Your task to perform on an android device: add a contact in the contacts app Image 0: 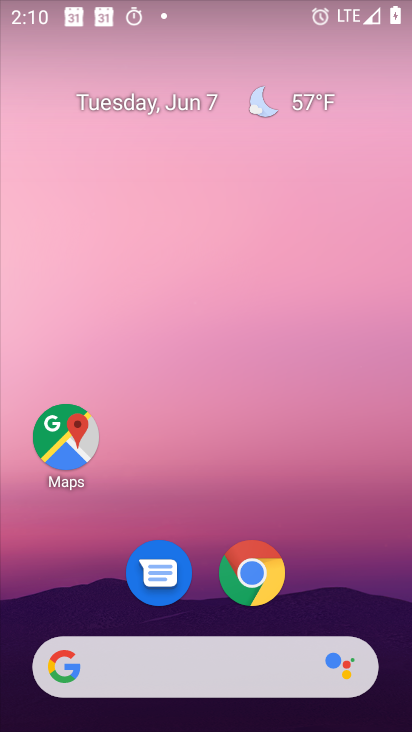
Step 0: drag from (318, 589) to (165, 64)
Your task to perform on an android device: add a contact in the contacts app Image 1: 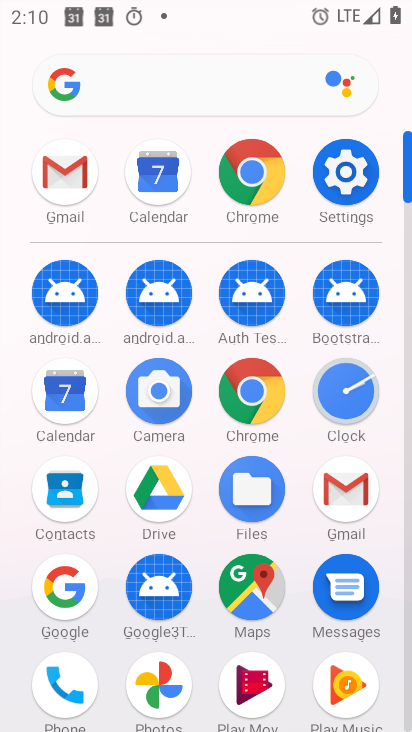
Step 1: click (64, 498)
Your task to perform on an android device: add a contact in the contacts app Image 2: 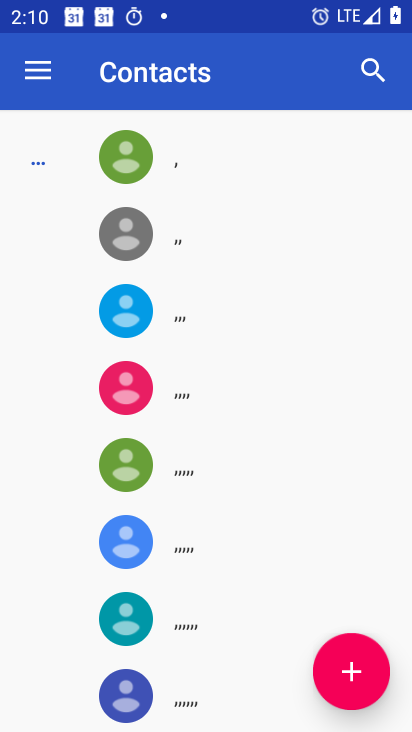
Step 2: click (351, 656)
Your task to perform on an android device: add a contact in the contacts app Image 3: 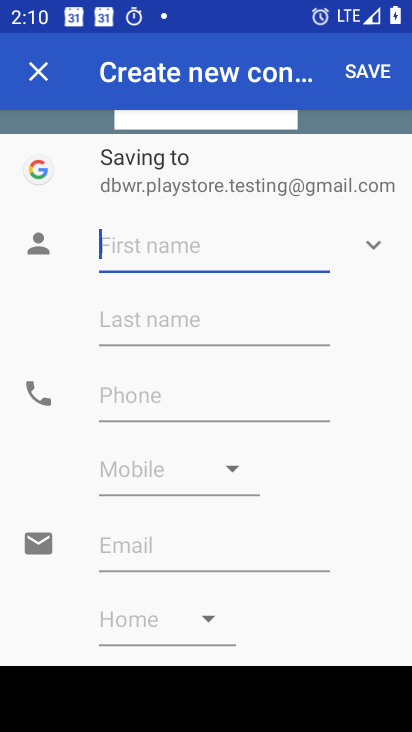
Step 3: type "nnnn"
Your task to perform on an android device: add a contact in the contacts app Image 4: 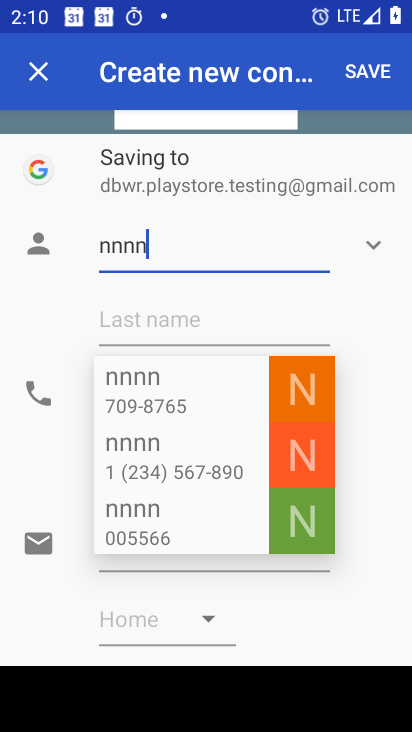
Step 4: click (191, 409)
Your task to perform on an android device: add a contact in the contacts app Image 5: 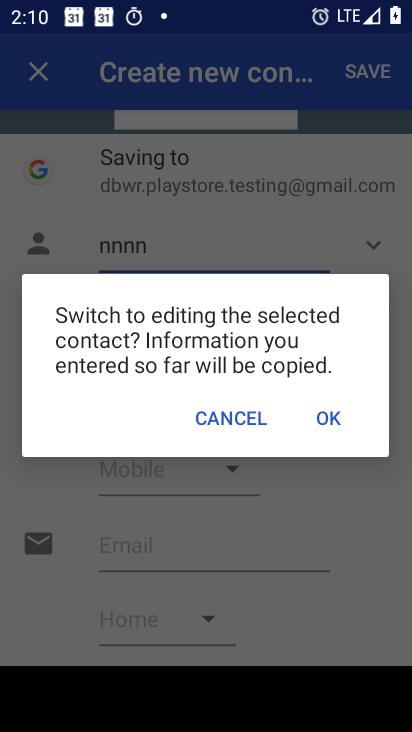
Step 5: click (244, 412)
Your task to perform on an android device: add a contact in the contacts app Image 6: 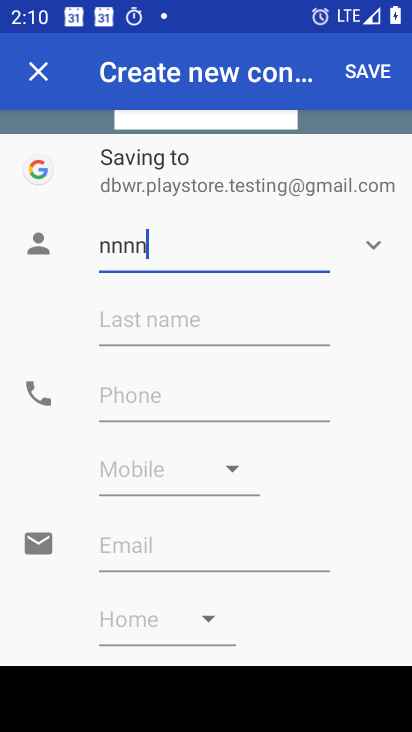
Step 6: click (175, 393)
Your task to perform on an android device: add a contact in the contacts app Image 7: 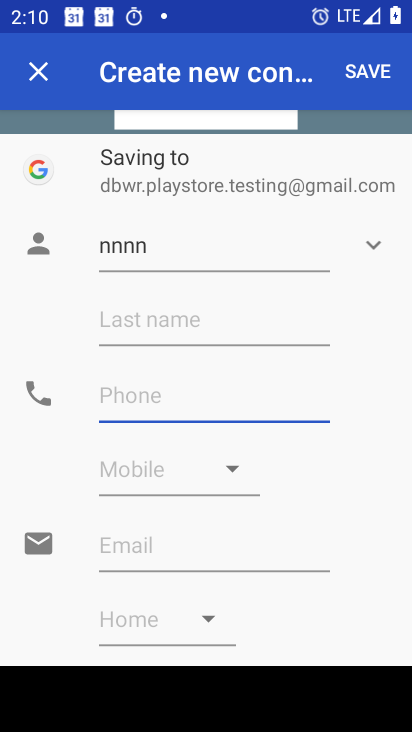
Step 7: type "44"
Your task to perform on an android device: add a contact in the contacts app Image 8: 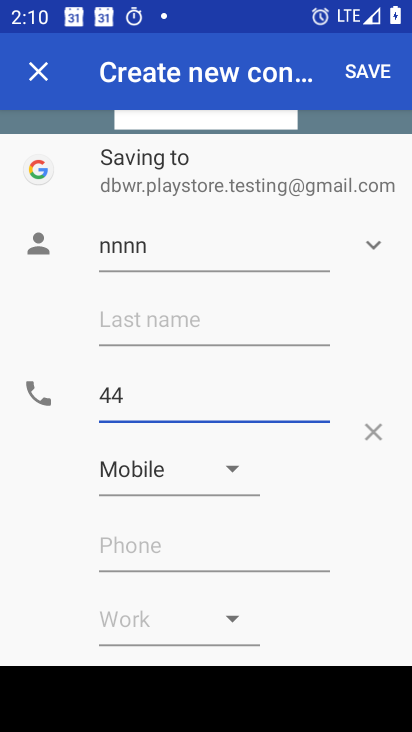
Step 8: click (364, 70)
Your task to perform on an android device: add a contact in the contacts app Image 9: 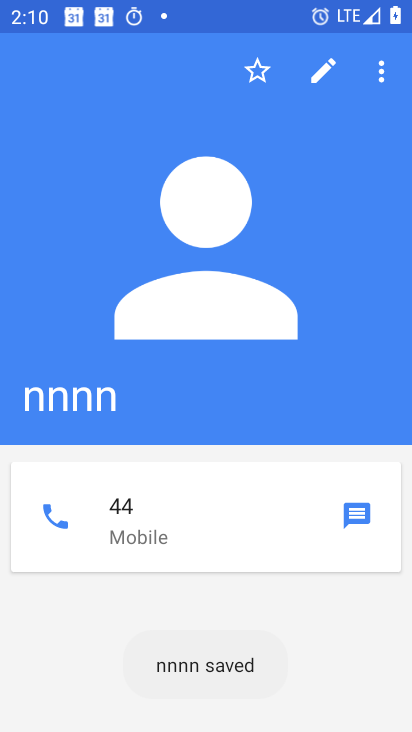
Step 9: task complete